Your task to perform on an android device: set an alarm Image 0: 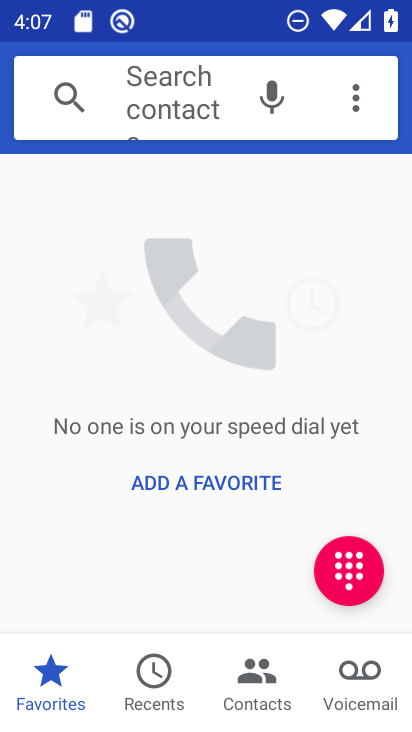
Step 0: press home button
Your task to perform on an android device: set an alarm Image 1: 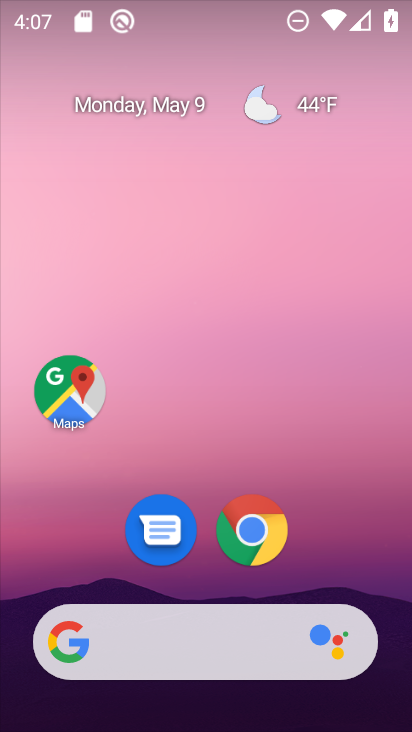
Step 1: drag from (203, 543) to (194, 133)
Your task to perform on an android device: set an alarm Image 2: 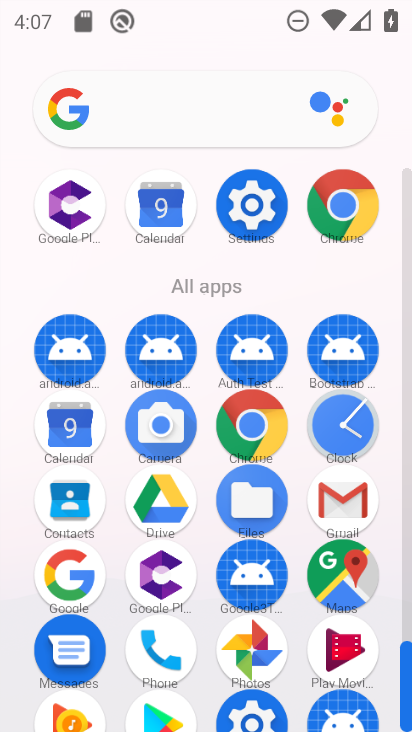
Step 2: click (341, 414)
Your task to perform on an android device: set an alarm Image 3: 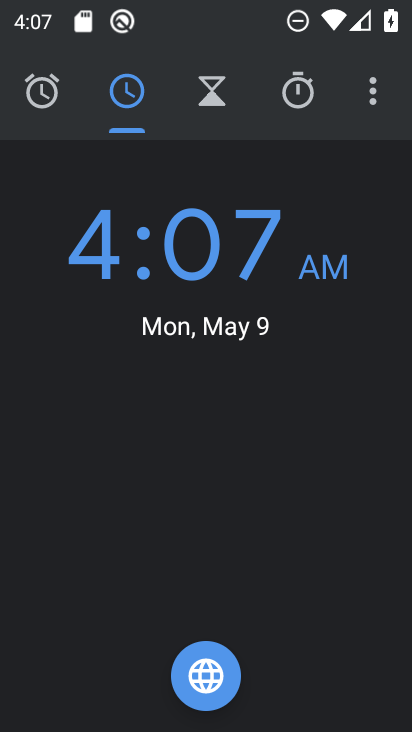
Step 3: click (42, 91)
Your task to perform on an android device: set an alarm Image 4: 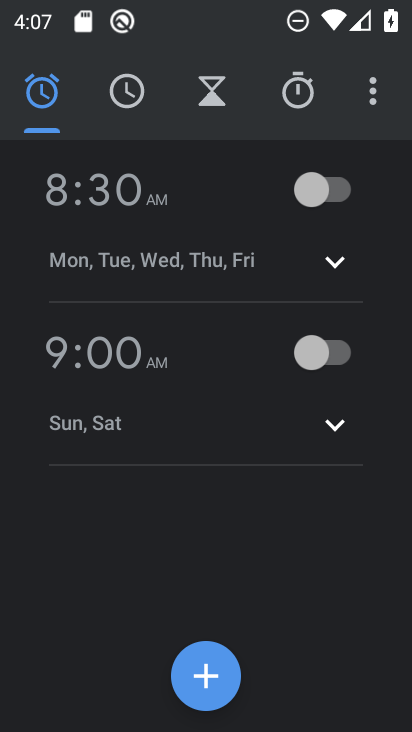
Step 4: click (337, 186)
Your task to perform on an android device: set an alarm Image 5: 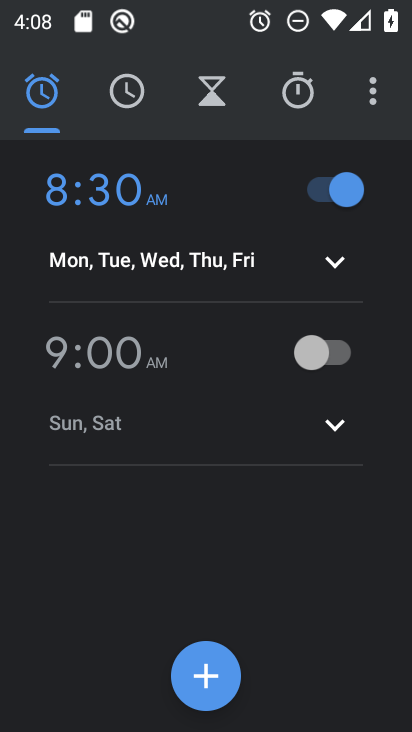
Step 5: task complete